Your task to perform on an android device: Go to Yahoo.com Image 0: 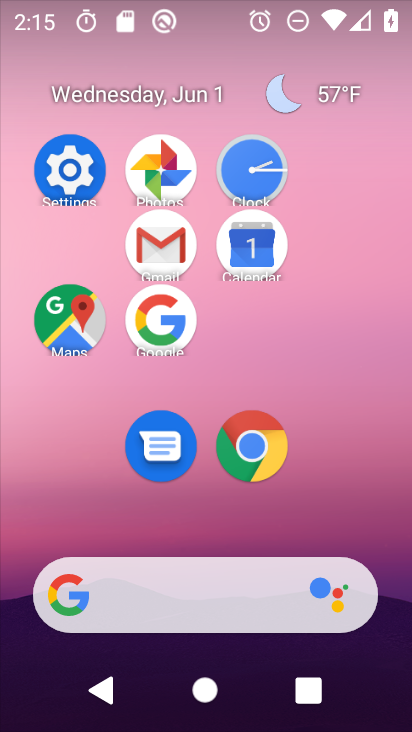
Step 0: click (273, 443)
Your task to perform on an android device: Go to Yahoo.com Image 1: 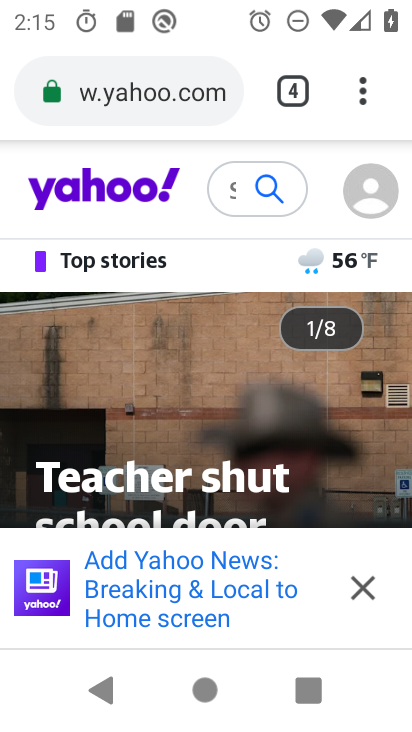
Step 1: click (292, 89)
Your task to perform on an android device: Go to Yahoo.com Image 2: 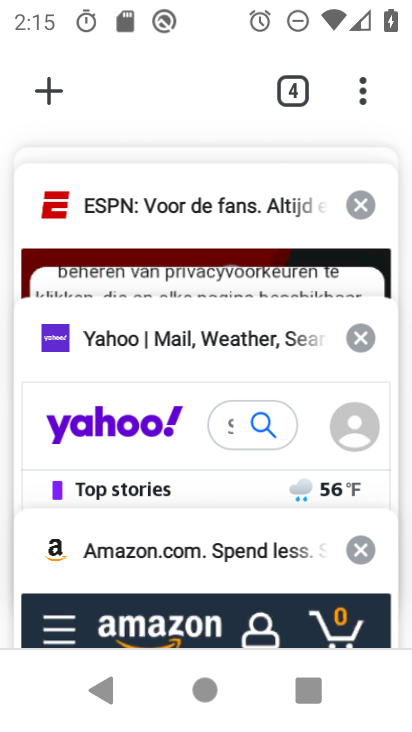
Step 2: drag from (188, 213) to (169, 549)
Your task to perform on an android device: Go to Yahoo.com Image 3: 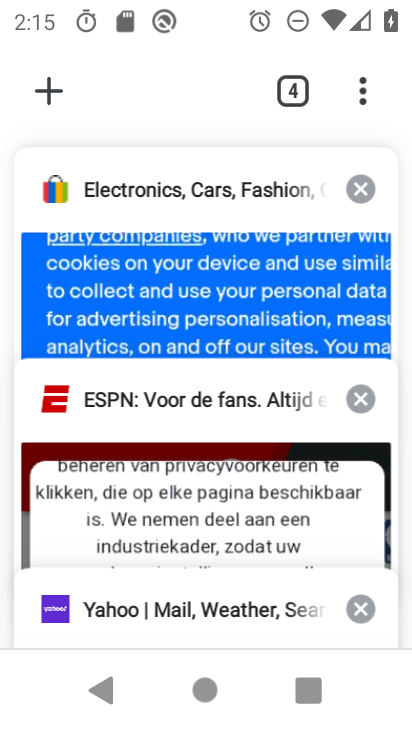
Step 3: drag from (186, 168) to (148, 428)
Your task to perform on an android device: Go to Yahoo.com Image 4: 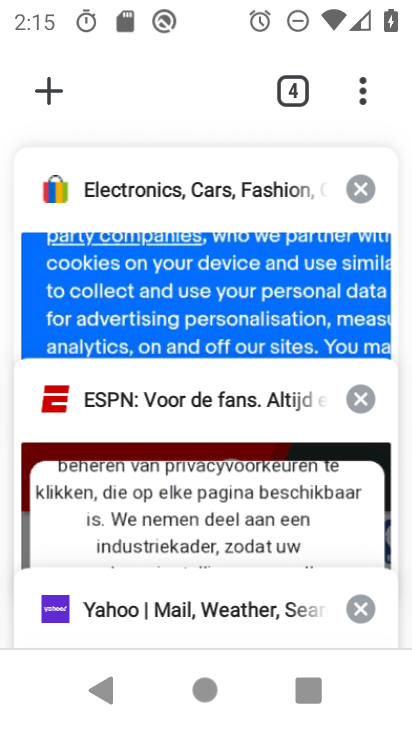
Step 4: drag from (170, 384) to (219, 76)
Your task to perform on an android device: Go to Yahoo.com Image 5: 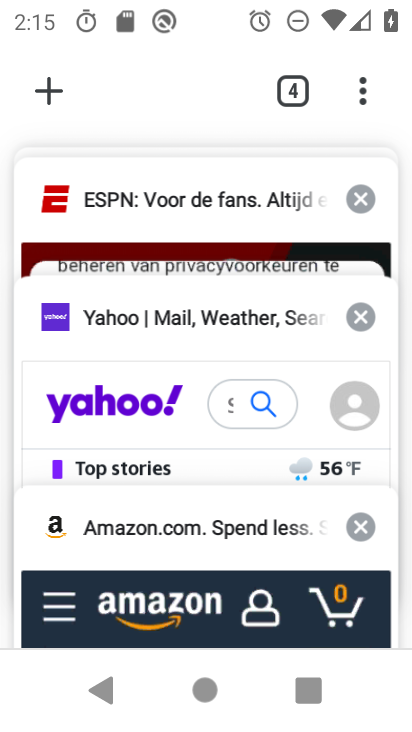
Step 5: drag from (209, 360) to (207, 143)
Your task to perform on an android device: Go to Yahoo.com Image 6: 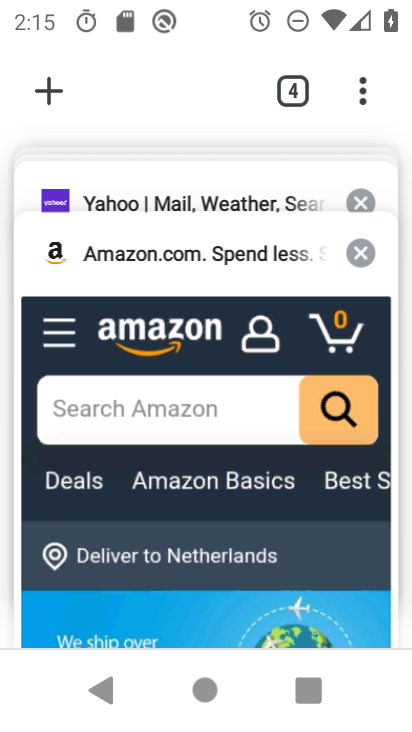
Step 6: click (158, 193)
Your task to perform on an android device: Go to Yahoo.com Image 7: 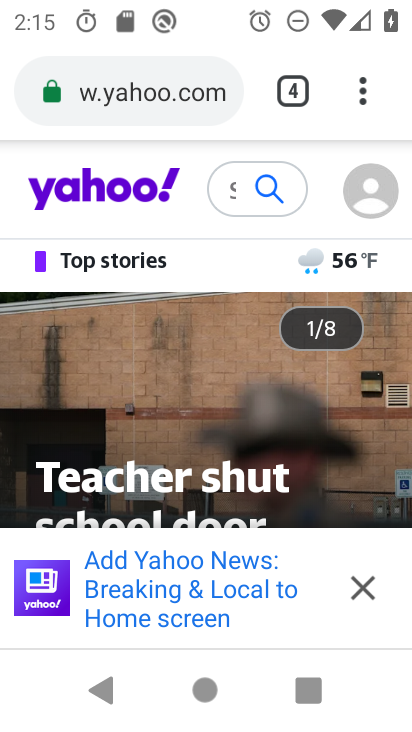
Step 7: task complete